Your task to perform on an android device: Show me recent news Image 0: 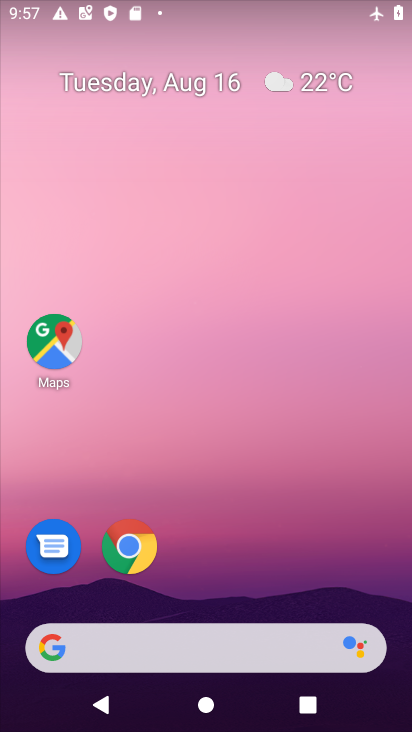
Step 0: click (263, 653)
Your task to perform on an android device: Show me recent news Image 1: 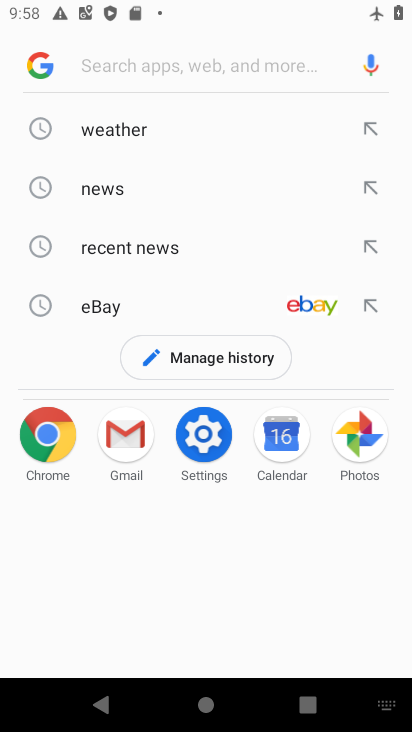
Step 1: click (134, 246)
Your task to perform on an android device: Show me recent news Image 2: 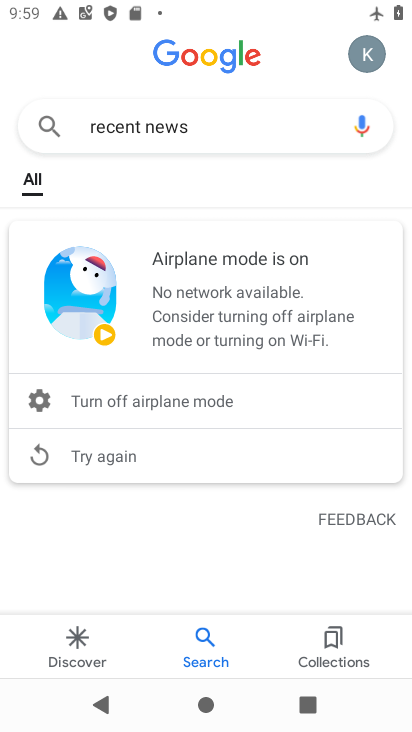
Step 2: task complete